Your task to perform on an android device: turn on wifi Image 0: 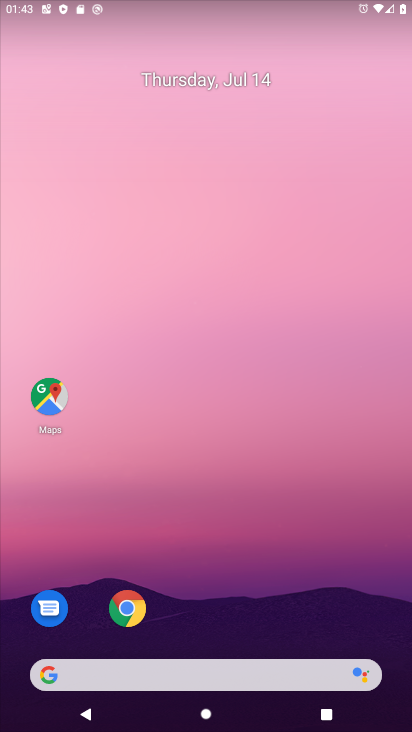
Step 0: drag from (232, 21) to (123, 576)
Your task to perform on an android device: turn on wifi Image 1: 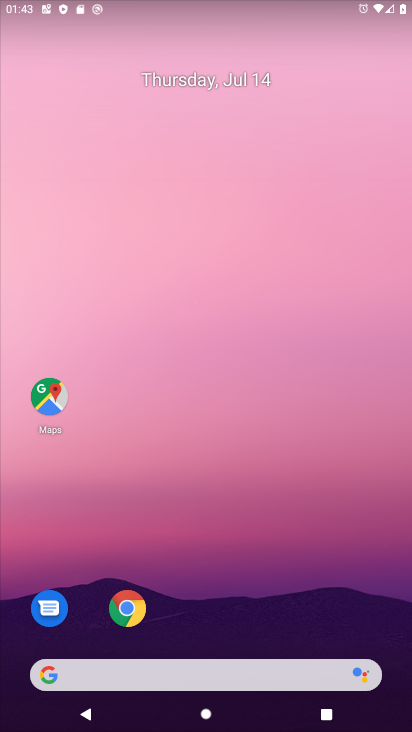
Step 1: task complete